Your task to perform on an android device: Go to privacy settings Image 0: 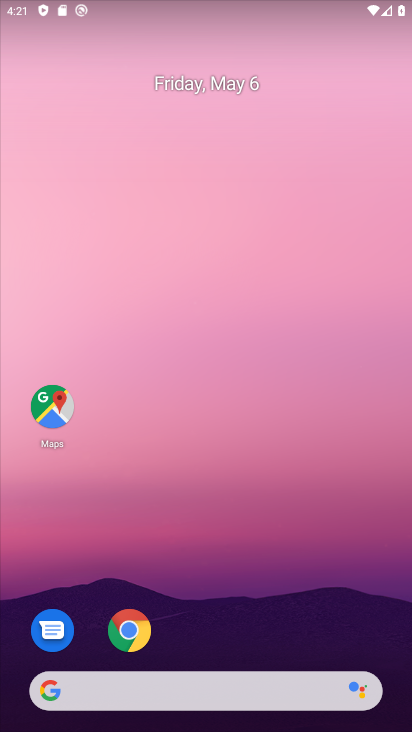
Step 0: click (137, 628)
Your task to perform on an android device: Go to privacy settings Image 1: 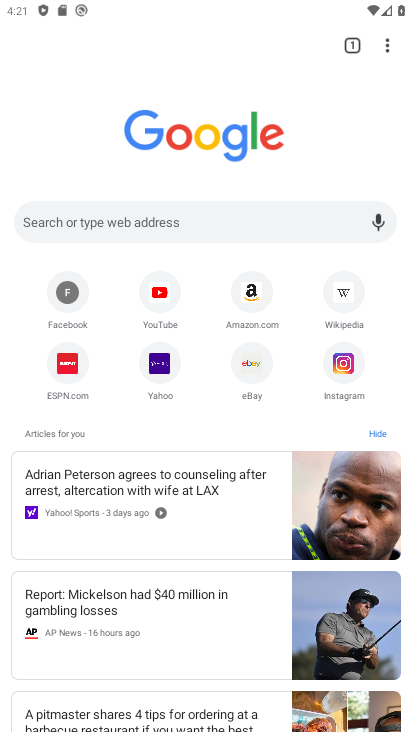
Step 1: click (392, 50)
Your task to perform on an android device: Go to privacy settings Image 2: 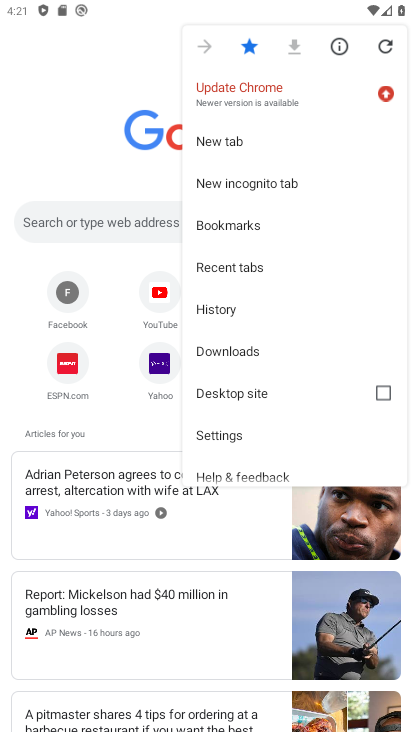
Step 2: click (262, 431)
Your task to perform on an android device: Go to privacy settings Image 3: 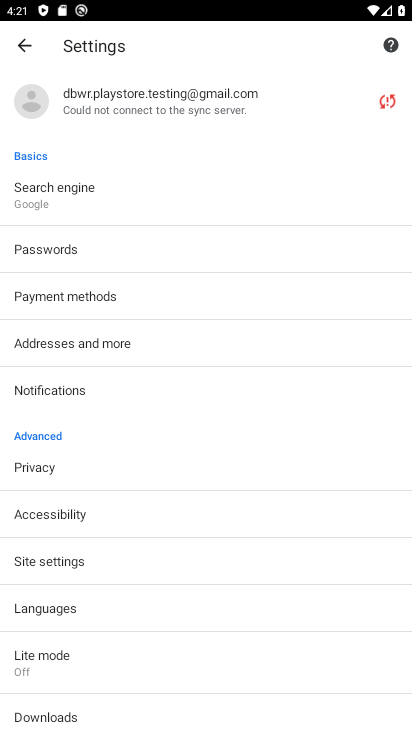
Step 3: click (48, 470)
Your task to perform on an android device: Go to privacy settings Image 4: 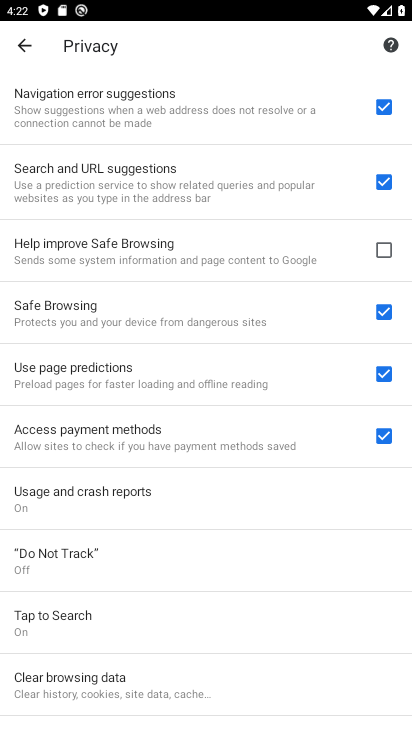
Step 4: task complete